Your task to perform on an android device: change the clock display to digital Image 0: 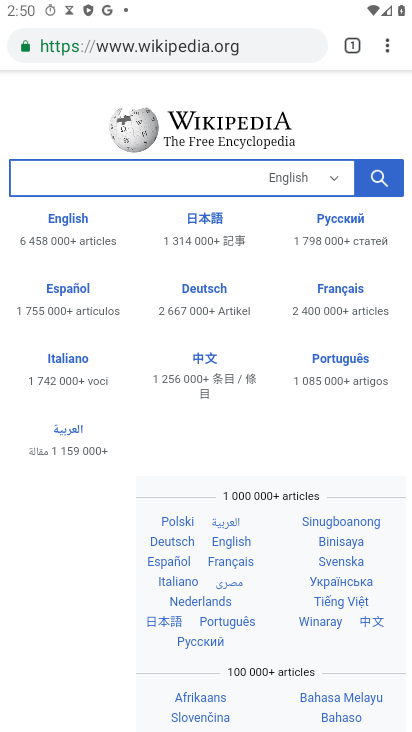
Step 0: press home button
Your task to perform on an android device: change the clock display to digital Image 1: 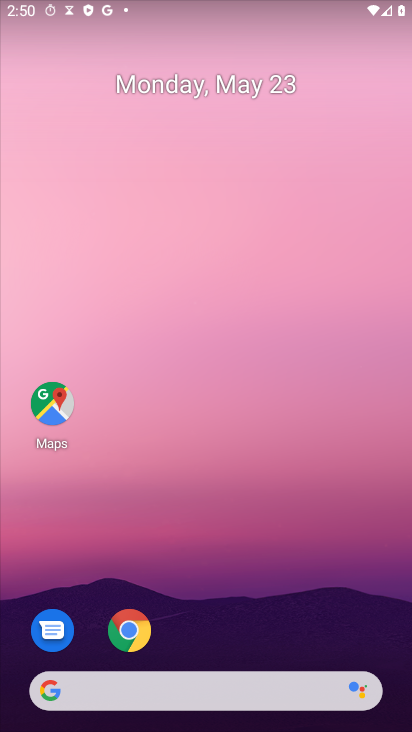
Step 1: drag from (329, 595) to (362, 61)
Your task to perform on an android device: change the clock display to digital Image 2: 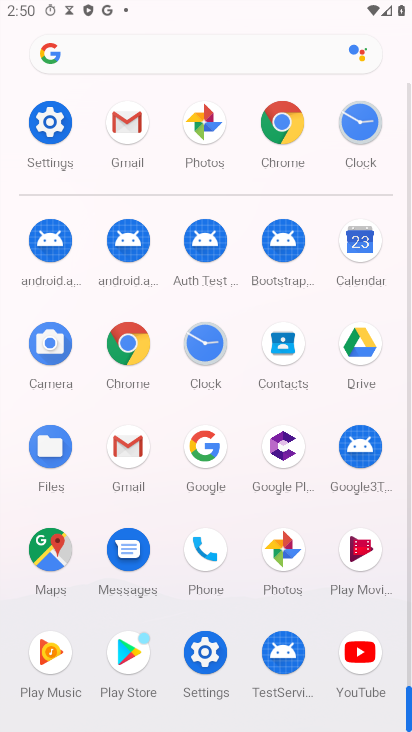
Step 2: click (359, 128)
Your task to perform on an android device: change the clock display to digital Image 3: 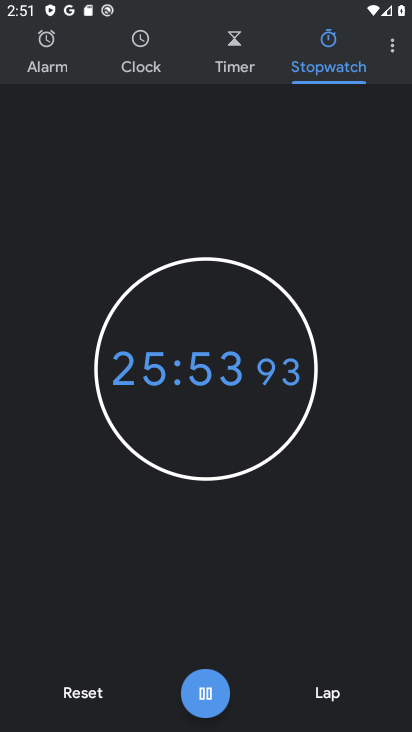
Step 3: click (399, 49)
Your task to perform on an android device: change the clock display to digital Image 4: 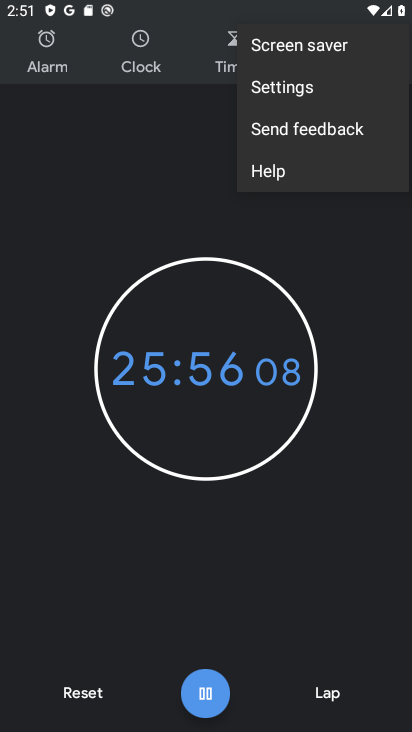
Step 4: click (289, 101)
Your task to perform on an android device: change the clock display to digital Image 5: 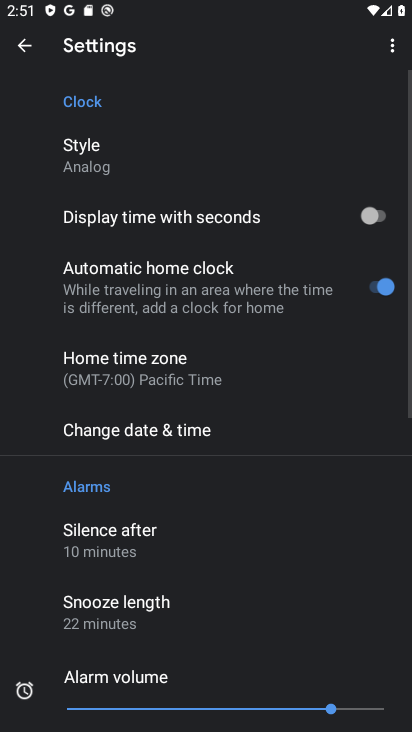
Step 5: click (118, 159)
Your task to perform on an android device: change the clock display to digital Image 6: 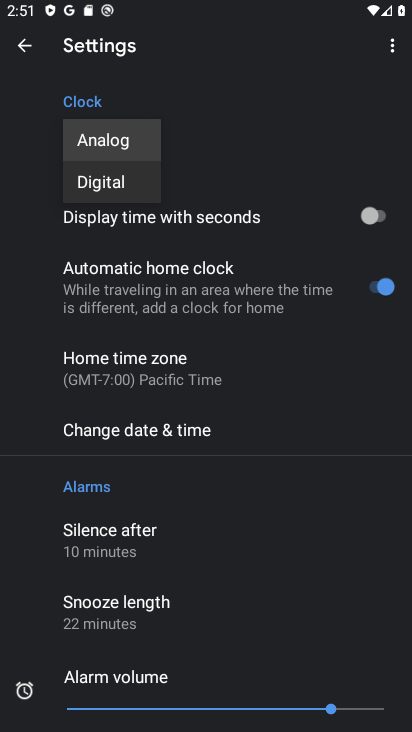
Step 6: click (119, 183)
Your task to perform on an android device: change the clock display to digital Image 7: 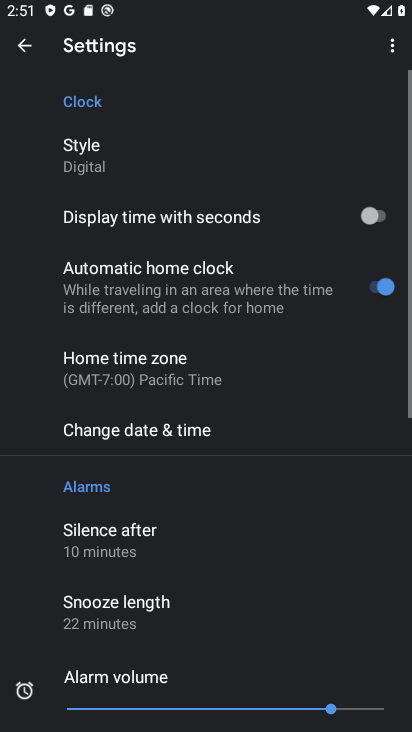
Step 7: task complete